Your task to perform on an android device: Open settings on Google Maps Image 0: 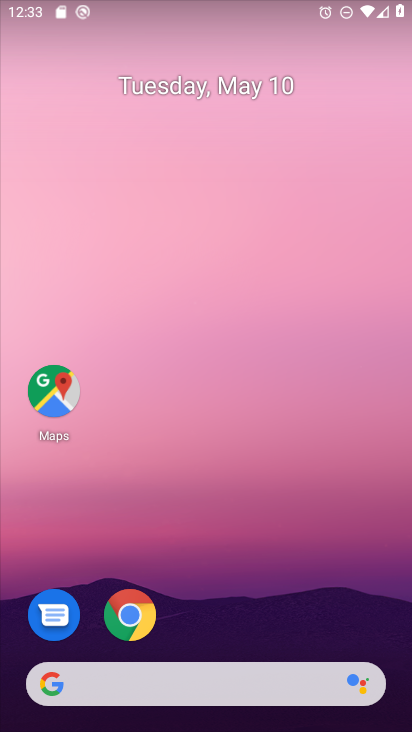
Step 0: drag from (192, 690) to (242, 362)
Your task to perform on an android device: Open settings on Google Maps Image 1: 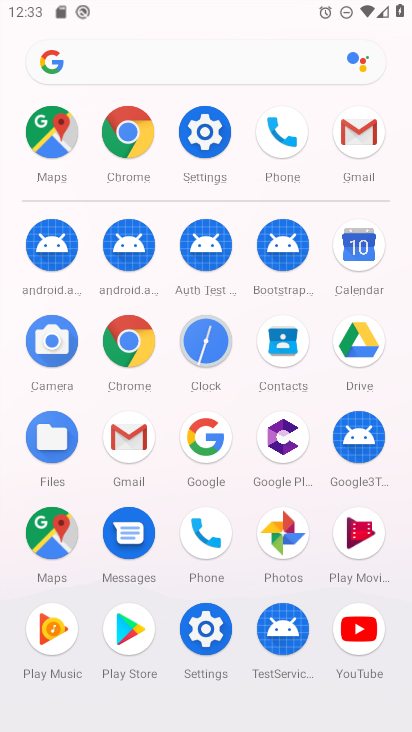
Step 1: click (78, 145)
Your task to perform on an android device: Open settings on Google Maps Image 2: 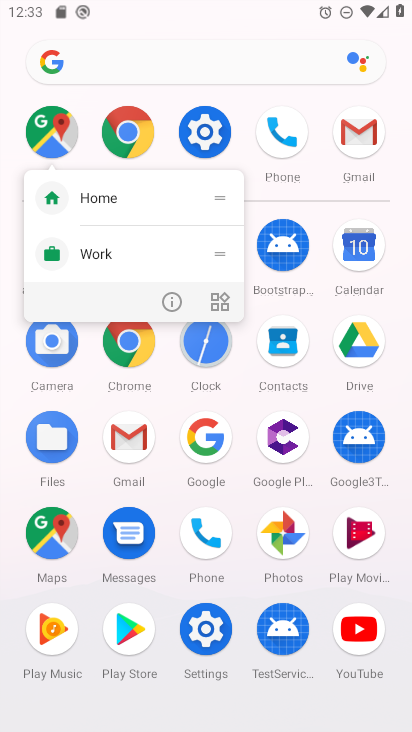
Step 2: click (68, 128)
Your task to perform on an android device: Open settings on Google Maps Image 3: 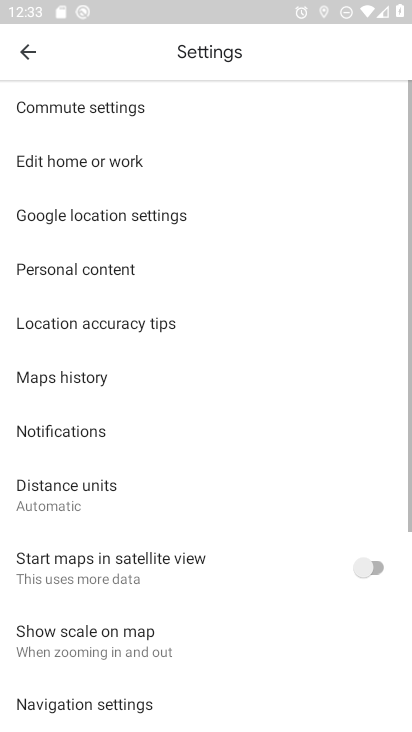
Step 3: task complete